Your task to perform on an android device: Add razer kraken to the cart on amazon Image 0: 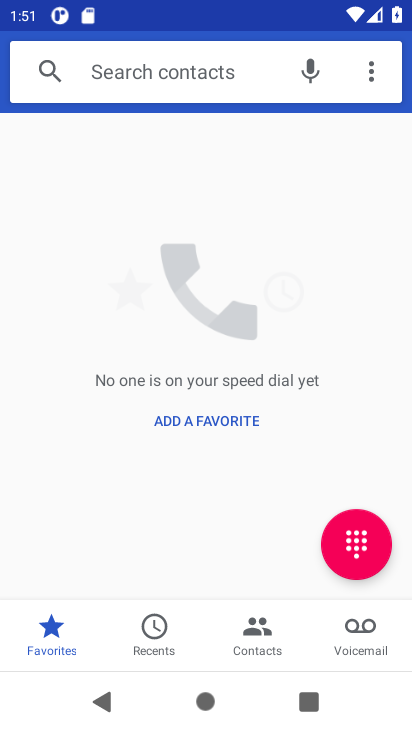
Step 0: press home button
Your task to perform on an android device: Add razer kraken to the cart on amazon Image 1: 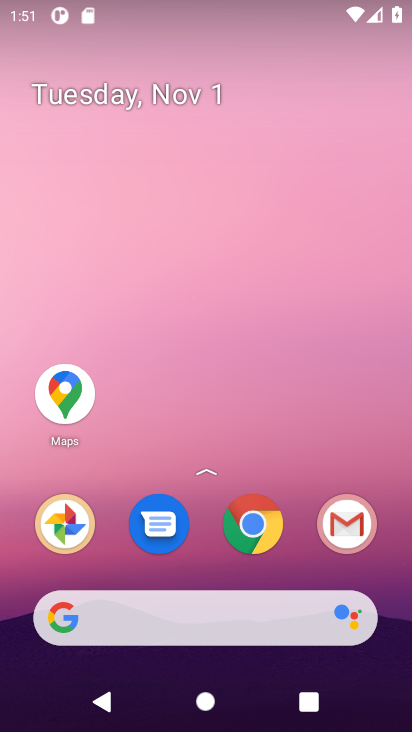
Step 1: click (252, 517)
Your task to perform on an android device: Add razer kraken to the cart on amazon Image 2: 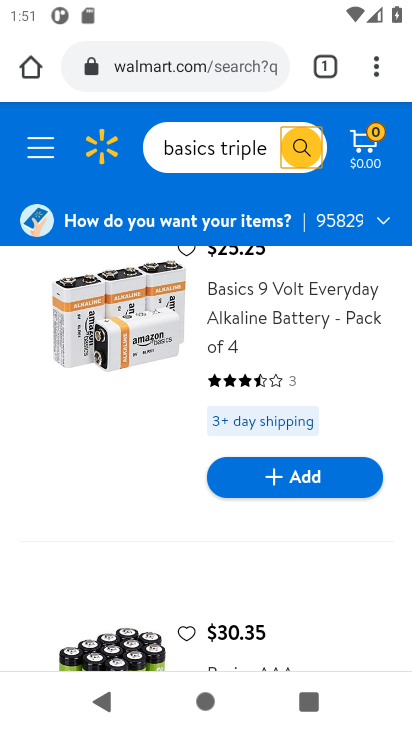
Step 2: click (198, 42)
Your task to perform on an android device: Add razer kraken to the cart on amazon Image 3: 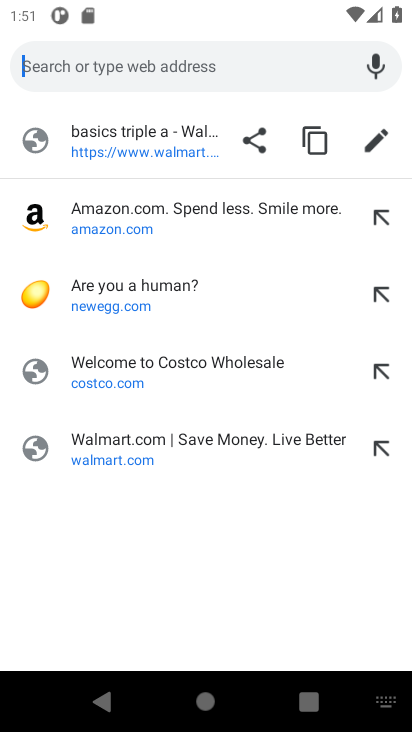
Step 3: click (94, 215)
Your task to perform on an android device: Add razer kraken to the cart on amazon Image 4: 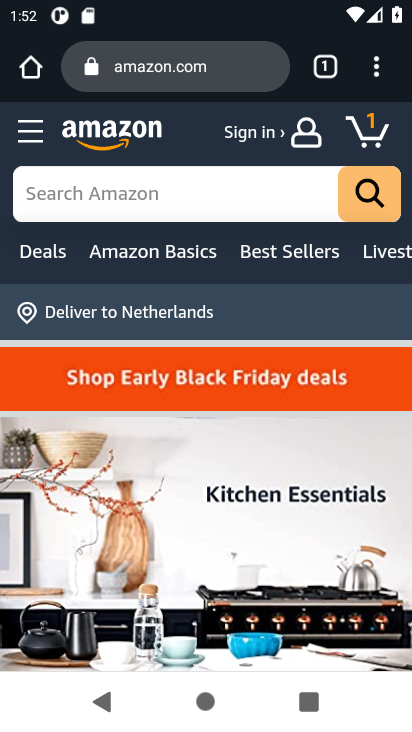
Step 4: click (110, 184)
Your task to perform on an android device: Add razer kraken to the cart on amazon Image 5: 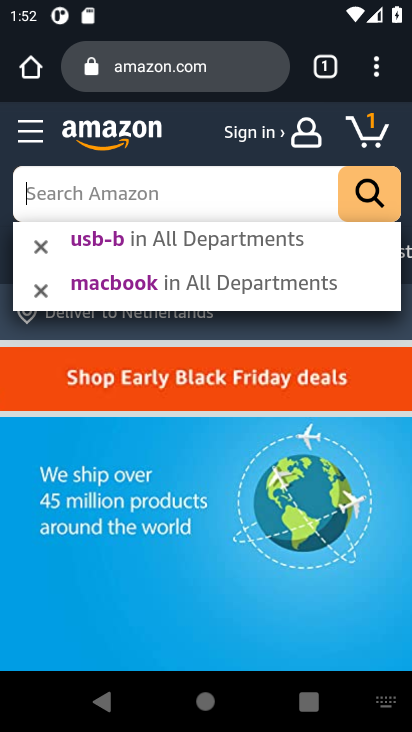
Step 5: type "razer kraken"
Your task to perform on an android device: Add razer kraken to the cart on amazon Image 6: 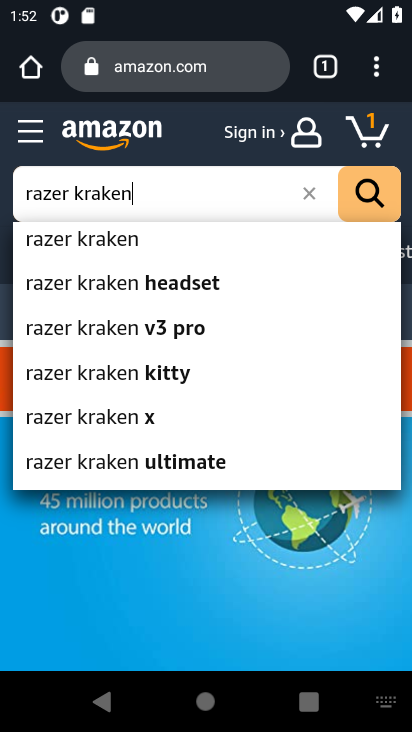
Step 6: click (99, 234)
Your task to perform on an android device: Add razer kraken to the cart on amazon Image 7: 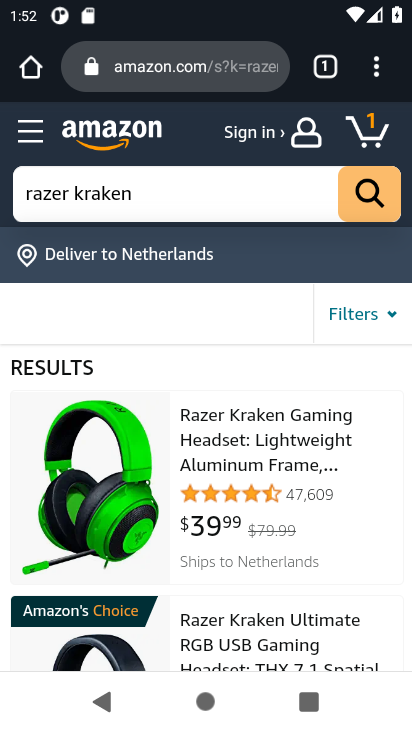
Step 7: click (212, 430)
Your task to perform on an android device: Add razer kraken to the cart on amazon Image 8: 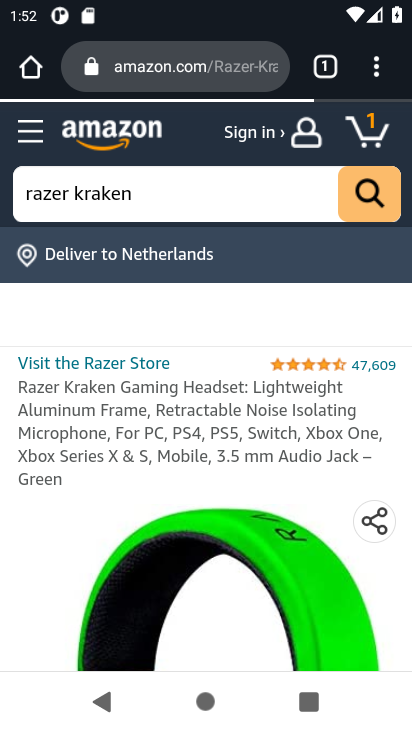
Step 8: drag from (211, 551) to (194, 245)
Your task to perform on an android device: Add razer kraken to the cart on amazon Image 9: 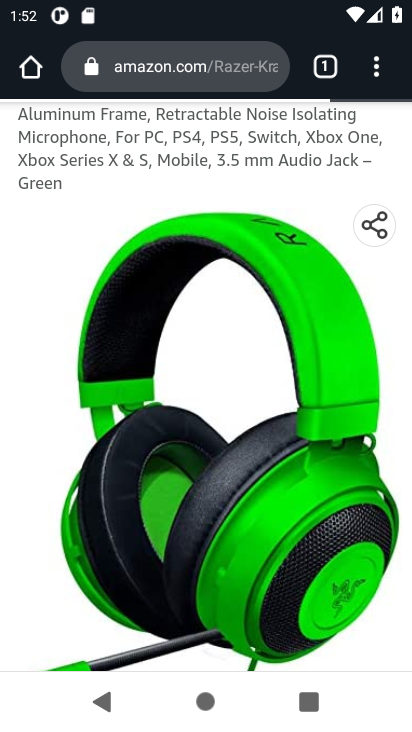
Step 9: drag from (208, 506) to (220, 246)
Your task to perform on an android device: Add razer kraken to the cart on amazon Image 10: 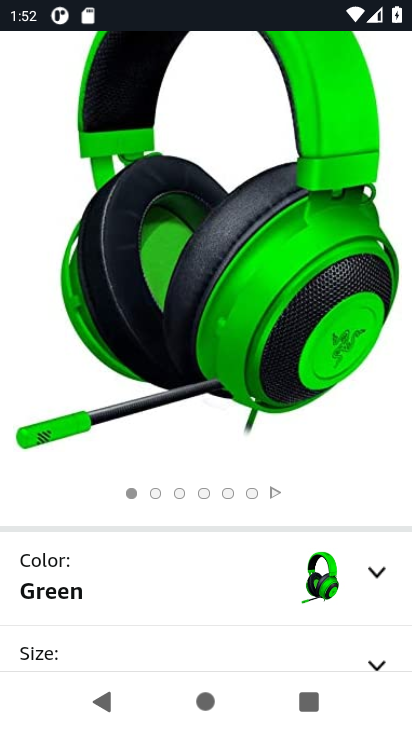
Step 10: drag from (258, 544) to (258, 235)
Your task to perform on an android device: Add razer kraken to the cart on amazon Image 11: 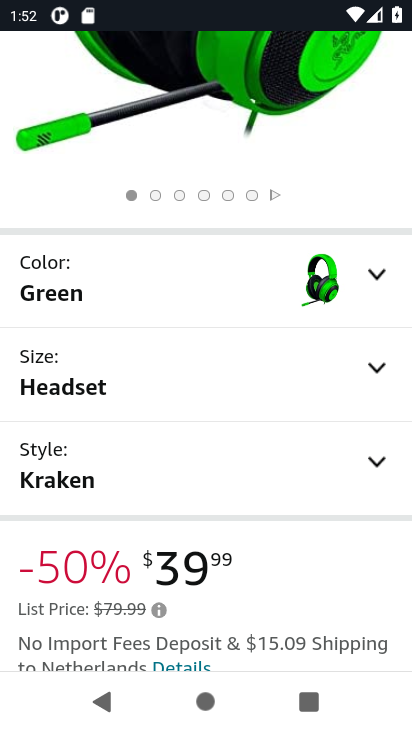
Step 11: drag from (258, 566) to (260, 202)
Your task to perform on an android device: Add razer kraken to the cart on amazon Image 12: 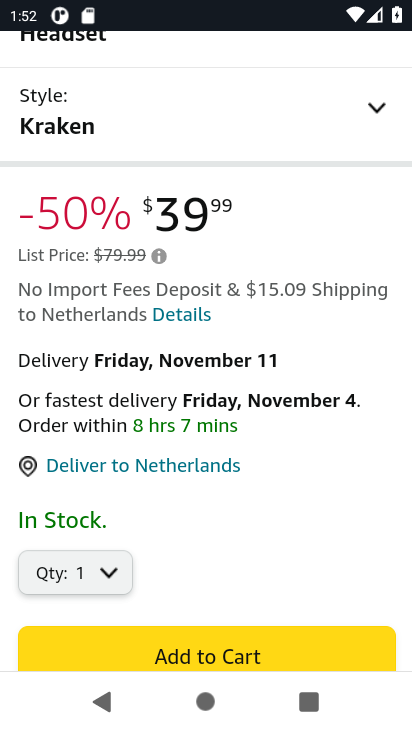
Step 12: drag from (250, 577) to (263, 227)
Your task to perform on an android device: Add razer kraken to the cart on amazon Image 13: 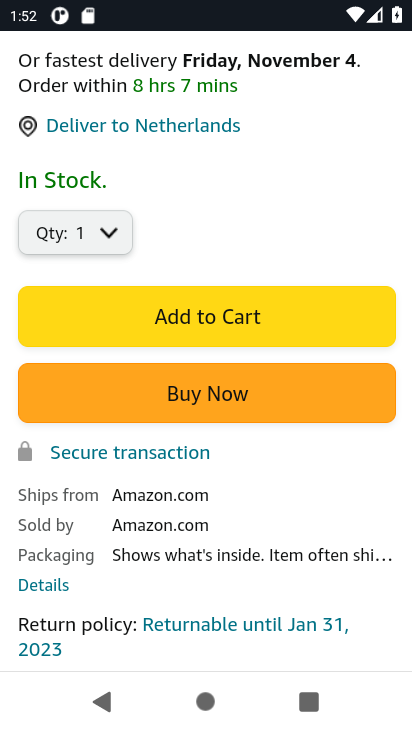
Step 13: click (199, 317)
Your task to perform on an android device: Add razer kraken to the cart on amazon Image 14: 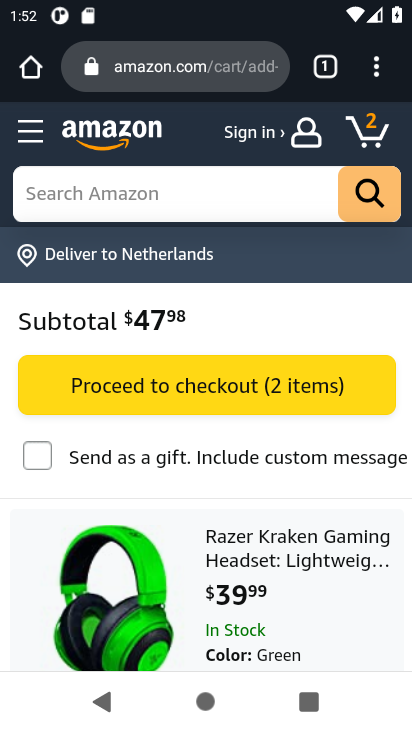
Step 14: task complete